Your task to perform on an android device: Do I have any events tomorrow? Image 0: 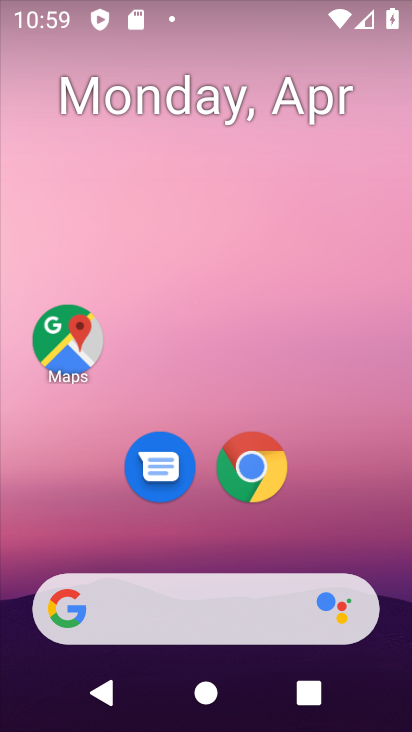
Step 0: drag from (319, 528) to (295, 165)
Your task to perform on an android device: Do I have any events tomorrow? Image 1: 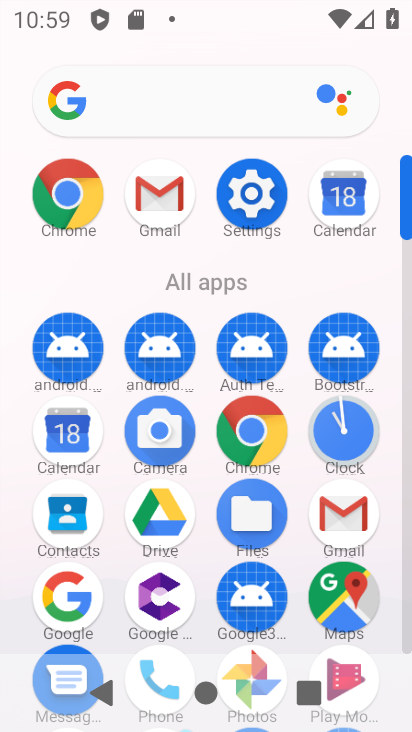
Step 1: click (61, 445)
Your task to perform on an android device: Do I have any events tomorrow? Image 2: 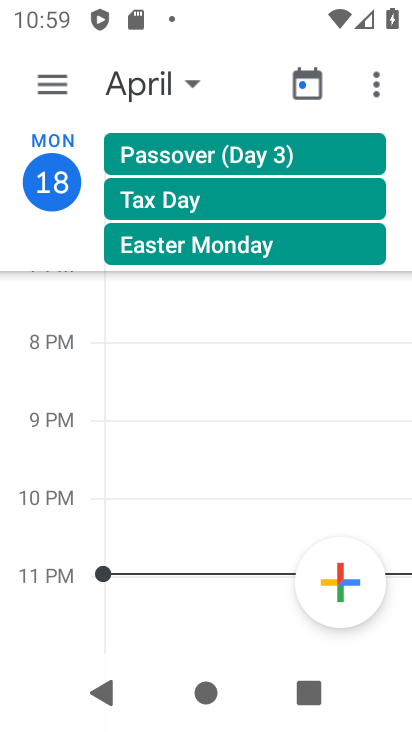
Step 2: click (150, 79)
Your task to perform on an android device: Do I have any events tomorrow? Image 3: 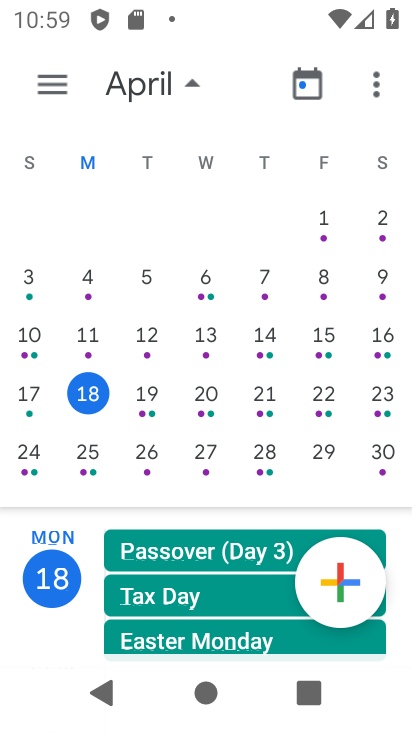
Step 3: click (157, 399)
Your task to perform on an android device: Do I have any events tomorrow? Image 4: 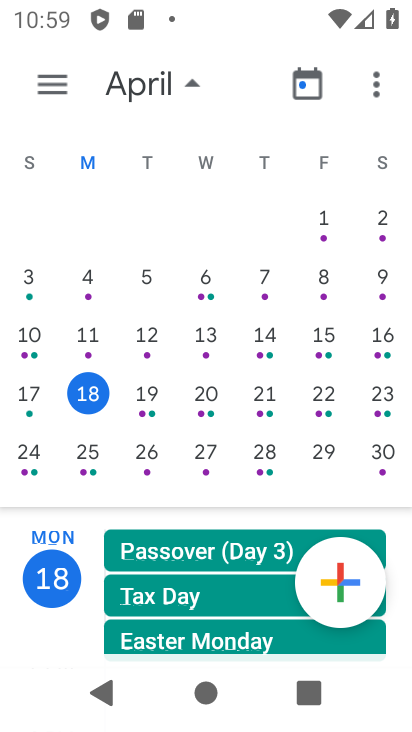
Step 4: click (148, 402)
Your task to perform on an android device: Do I have any events tomorrow? Image 5: 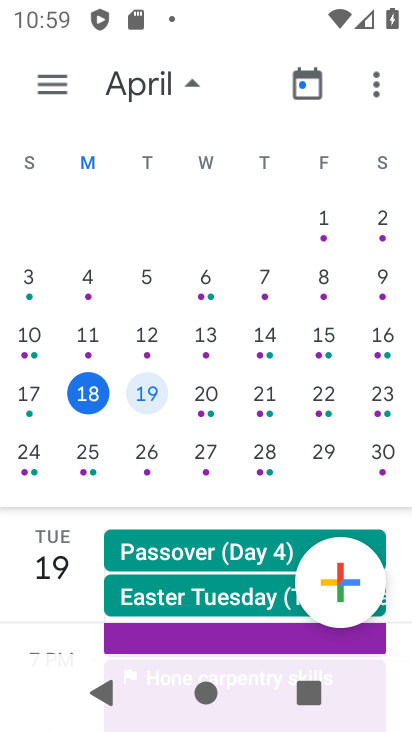
Step 5: task complete